Your task to perform on an android device: turn on improve location accuracy Image 0: 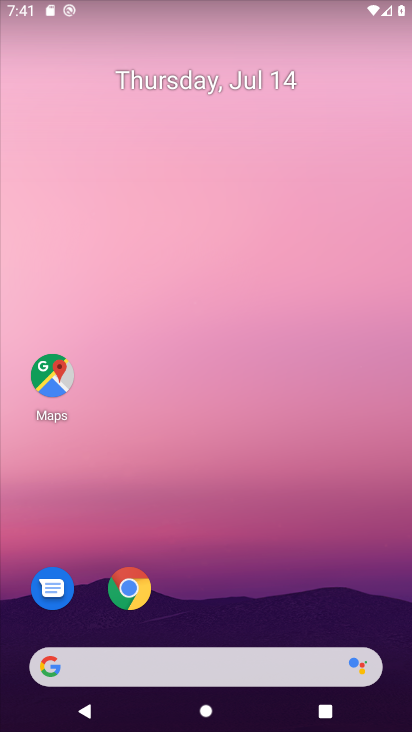
Step 0: drag from (260, 633) to (159, 100)
Your task to perform on an android device: turn on improve location accuracy Image 1: 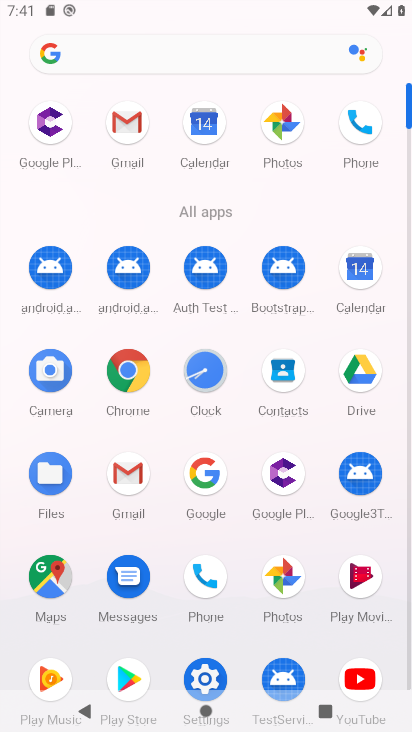
Step 1: click (210, 669)
Your task to perform on an android device: turn on improve location accuracy Image 2: 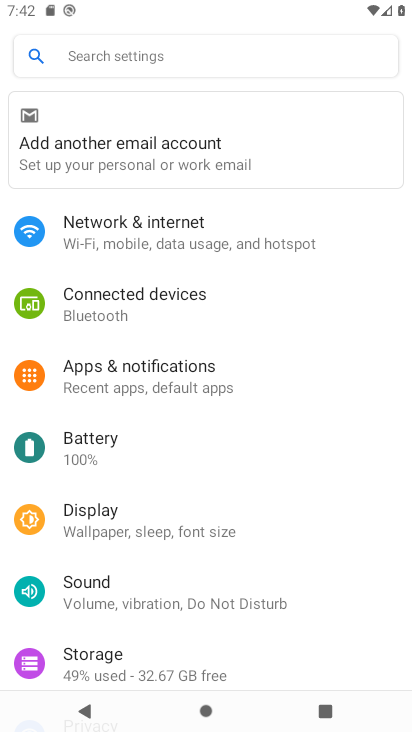
Step 2: drag from (198, 605) to (156, 254)
Your task to perform on an android device: turn on improve location accuracy Image 3: 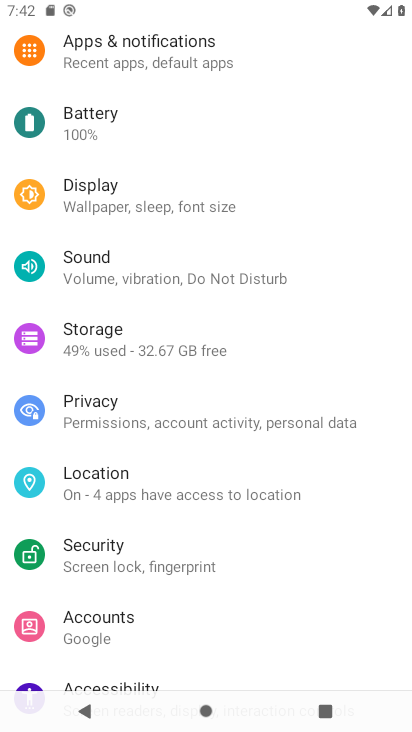
Step 3: click (109, 471)
Your task to perform on an android device: turn on improve location accuracy Image 4: 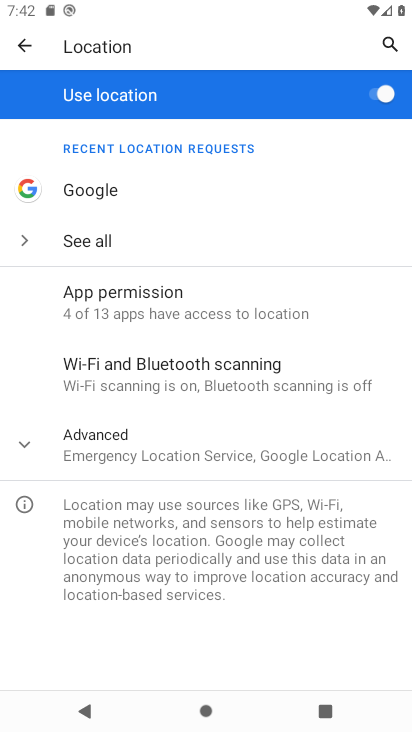
Step 4: task complete